Your task to perform on an android device: Open settings on Google Maps Image 0: 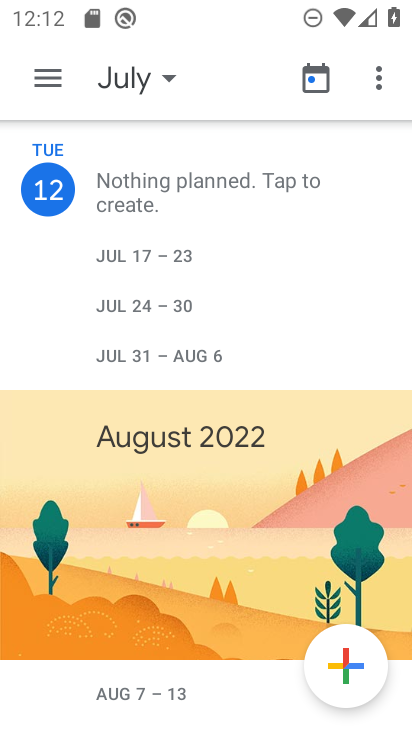
Step 0: press back button
Your task to perform on an android device: Open settings on Google Maps Image 1: 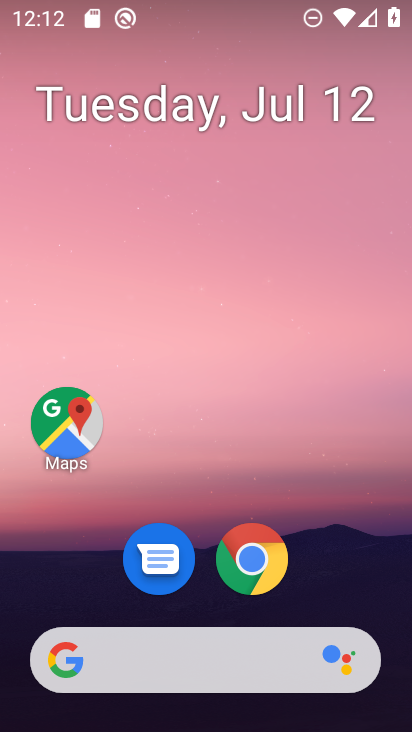
Step 1: click (66, 408)
Your task to perform on an android device: Open settings on Google Maps Image 2: 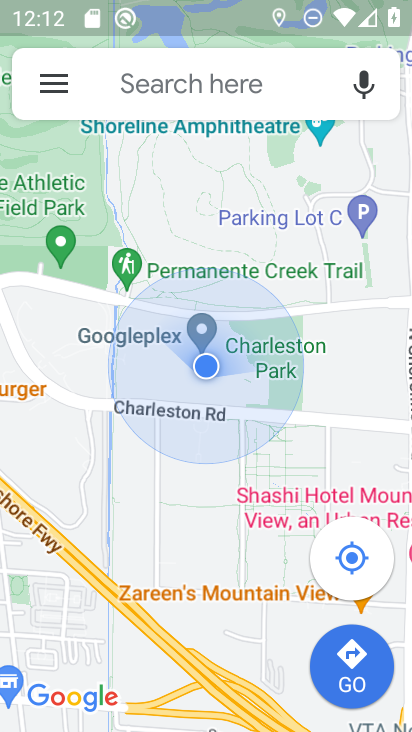
Step 2: click (47, 65)
Your task to perform on an android device: Open settings on Google Maps Image 3: 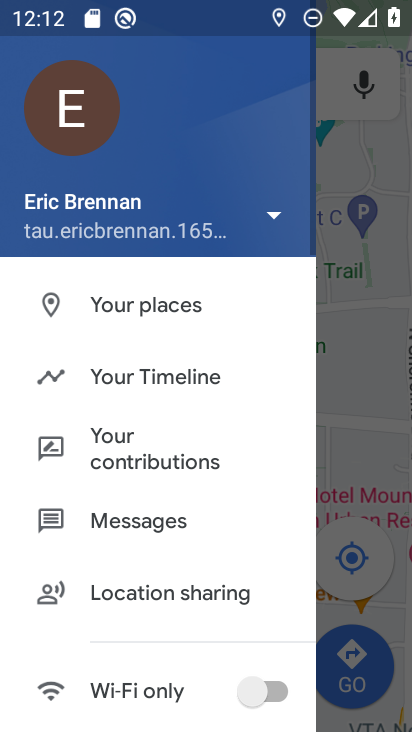
Step 3: drag from (94, 642) to (179, 33)
Your task to perform on an android device: Open settings on Google Maps Image 4: 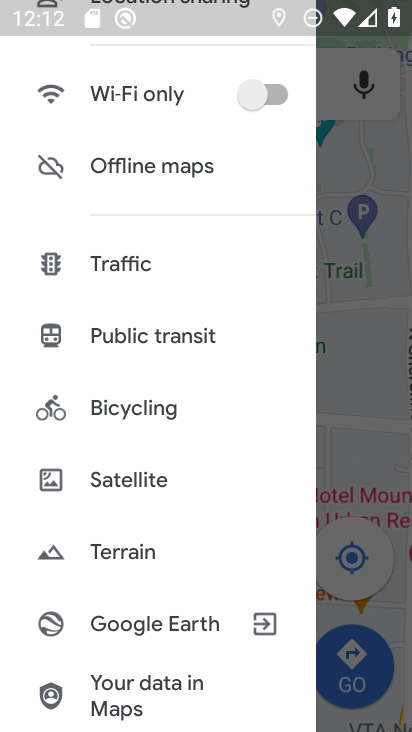
Step 4: drag from (95, 657) to (189, 49)
Your task to perform on an android device: Open settings on Google Maps Image 5: 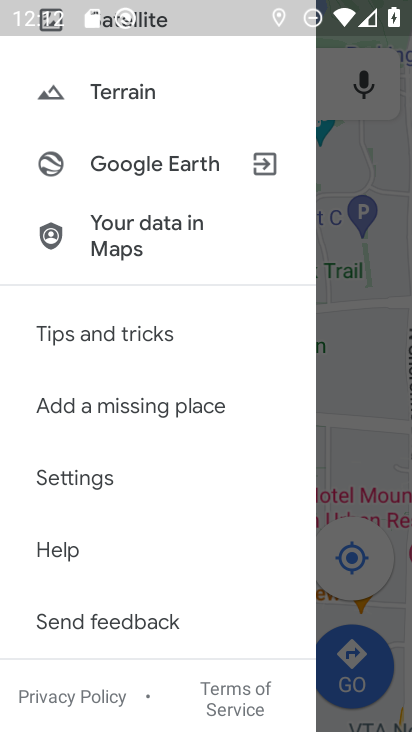
Step 5: click (66, 476)
Your task to perform on an android device: Open settings on Google Maps Image 6: 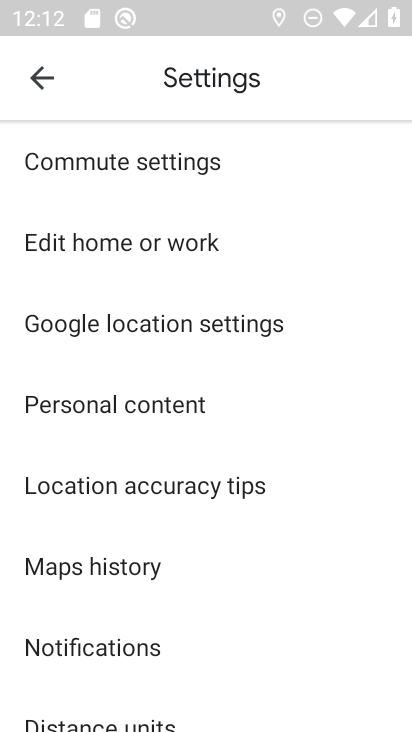
Step 6: task complete